Your task to perform on an android device: delete the emails in spam in the gmail app Image 0: 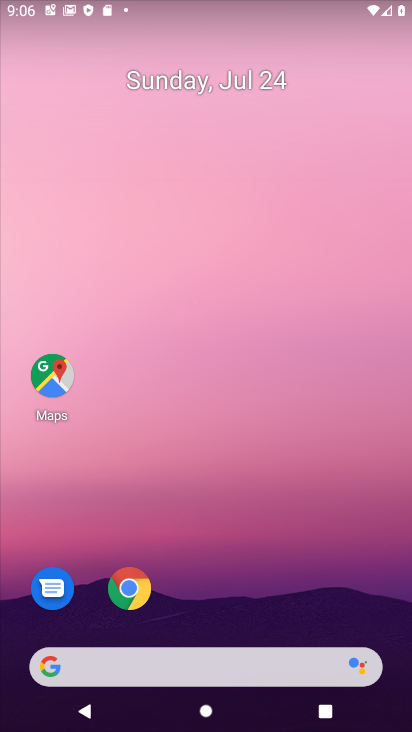
Step 0: drag from (283, 552) to (280, 3)
Your task to perform on an android device: delete the emails in spam in the gmail app Image 1: 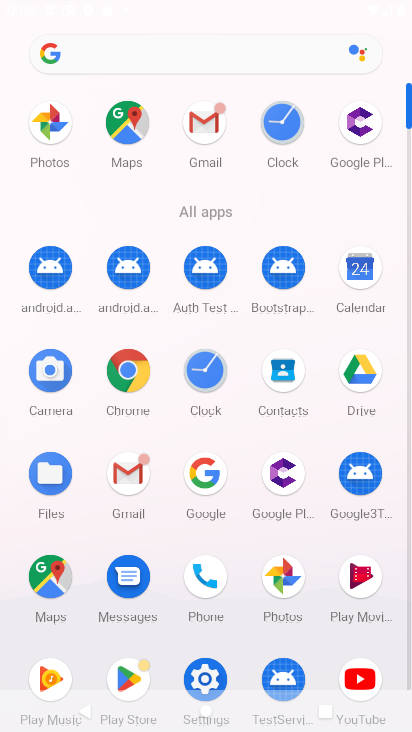
Step 1: click (198, 127)
Your task to perform on an android device: delete the emails in spam in the gmail app Image 2: 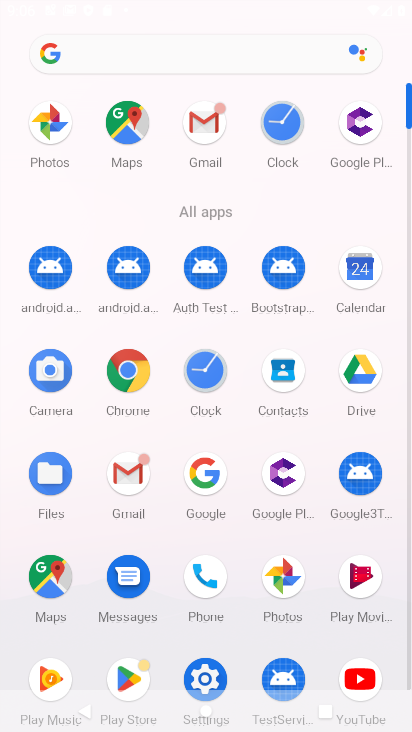
Step 2: click (204, 130)
Your task to perform on an android device: delete the emails in spam in the gmail app Image 3: 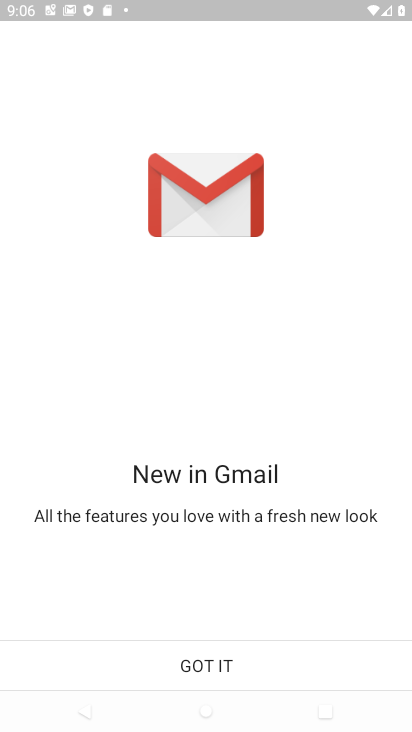
Step 3: click (209, 671)
Your task to perform on an android device: delete the emails in spam in the gmail app Image 4: 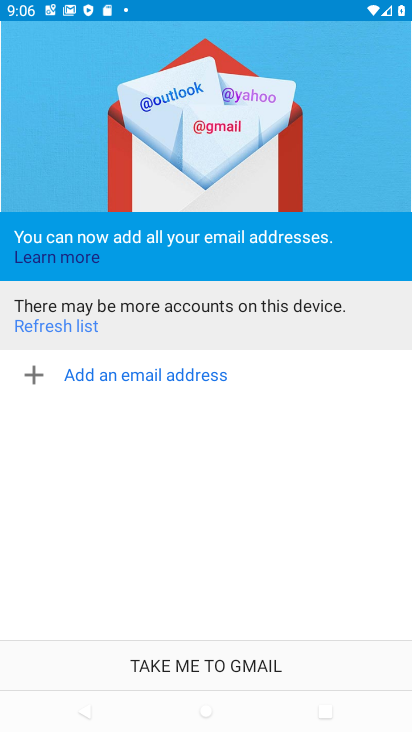
Step 4: click (208, 671)
Your task to perform on an android device: delete the emails in spam in the gmail app Image 5: 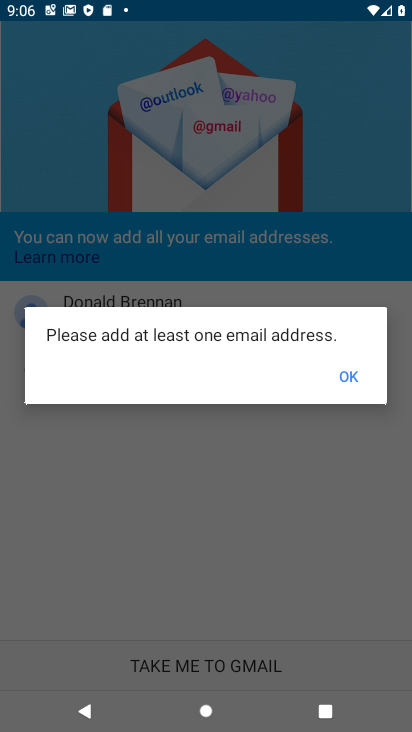
Step 5: click (342, 381)
Your task to perform on an android device: delete the emails in spam in the gmail app Image 6: 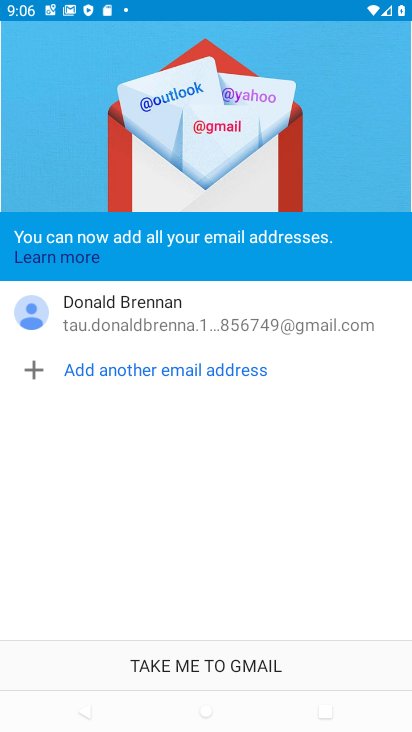
Step 6: click (245, 670)
Your task to perform on an android device: delete the emails in spam in the gmail app Image 7: 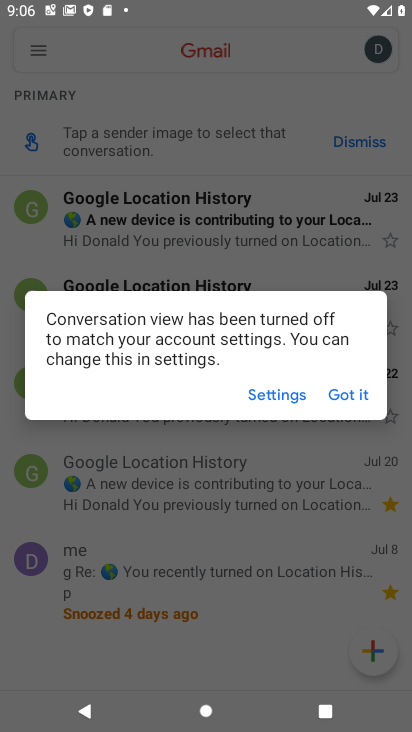
Step 7: click (355, 388)
Your task to perform on an android device: delete the emails in spam in the gmail app Image 8: 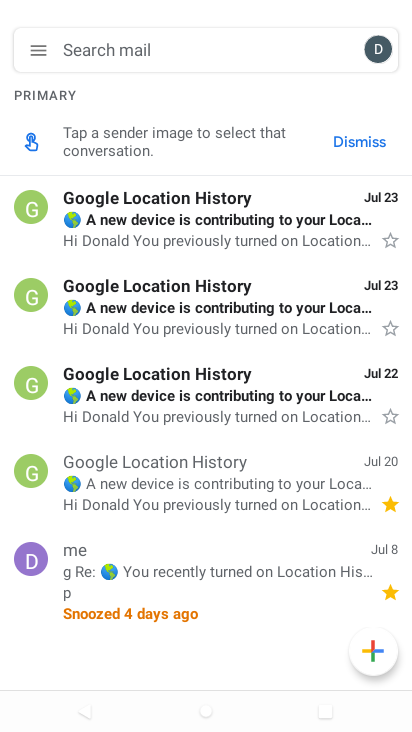
Step 8: click (29, 48)
Your task to perform on an android device: delete the emails in spam in the gmail app Image 9: 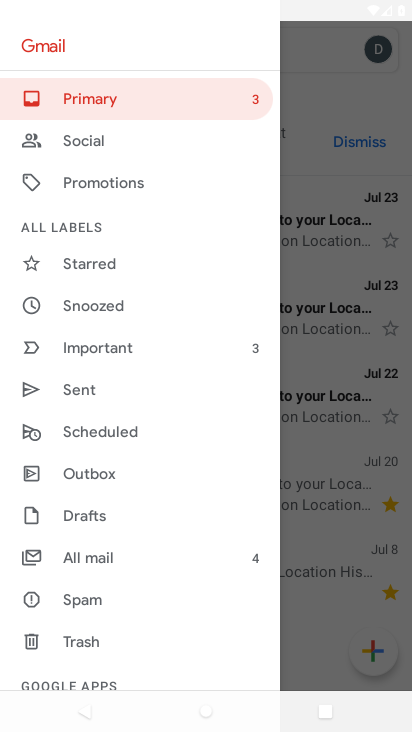
Step 9: click (79, 610)
Your task to perform on an android device: delete the emails in spam in the gmail app Image 10: 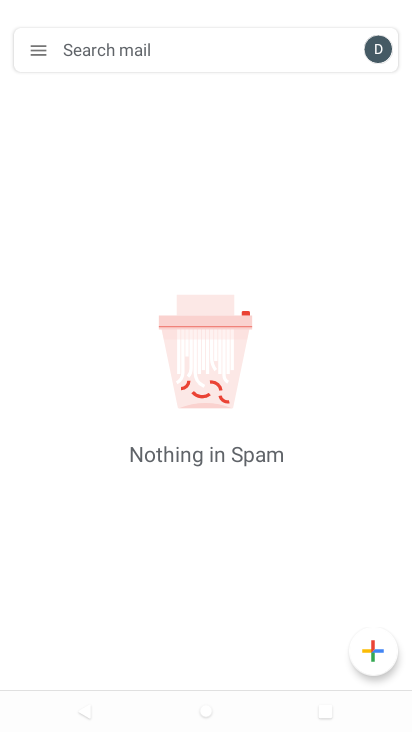
Step 10: task complete